Your task to perform on an android device: find which apps use the phone's location Image 0: 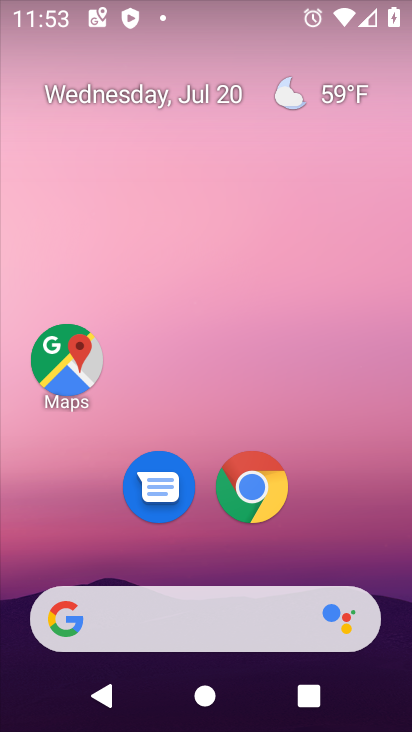
Step 0: drag from (358, 547) to (371, 93)
Your task to perform on an android device: find which apps use the phone's location Image 1: 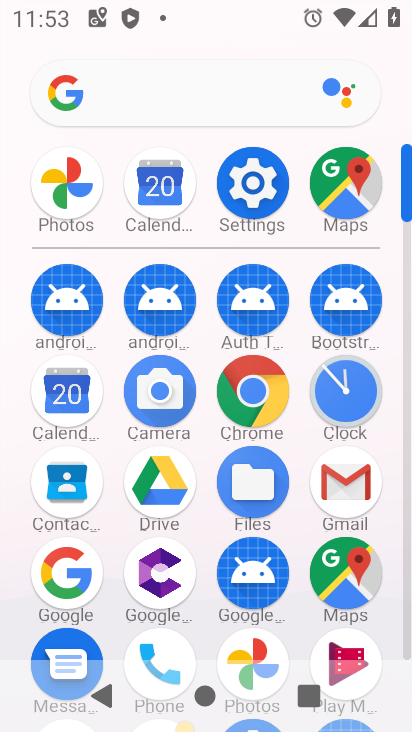
Step 1: click (266, 195)
Your task to perform on an android device: find which apps use the phone's location Image 2: 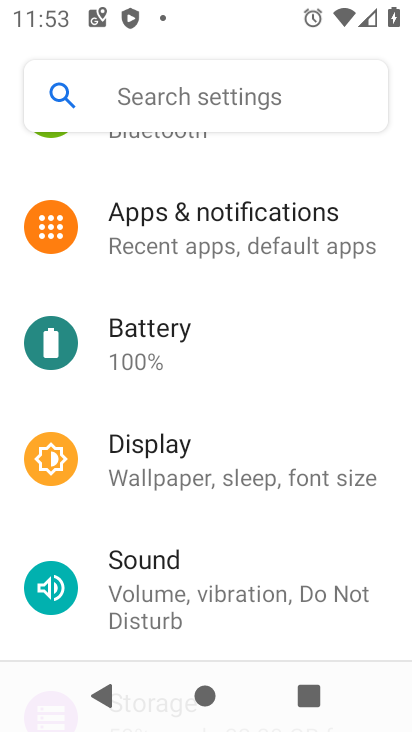
Step 2: drag from (345, 307) to (340, 418)
Your task to perform on an android device: find which apps use the phone's location Image 3: 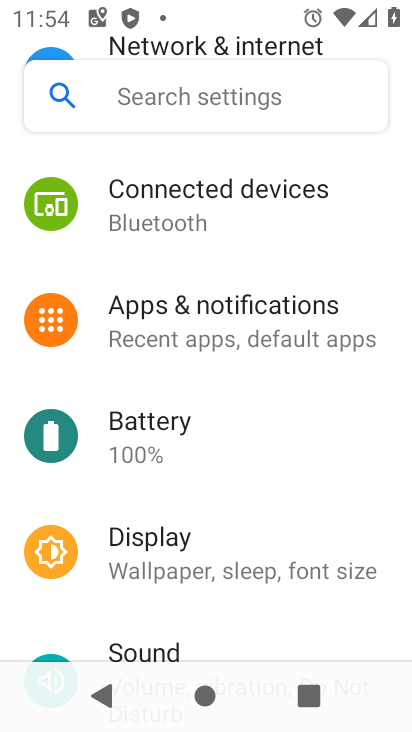
Step 3: drag from (372, 262) to (371, 425)
Your task to perform on an android device: find which apps use the phone's location Image 4: 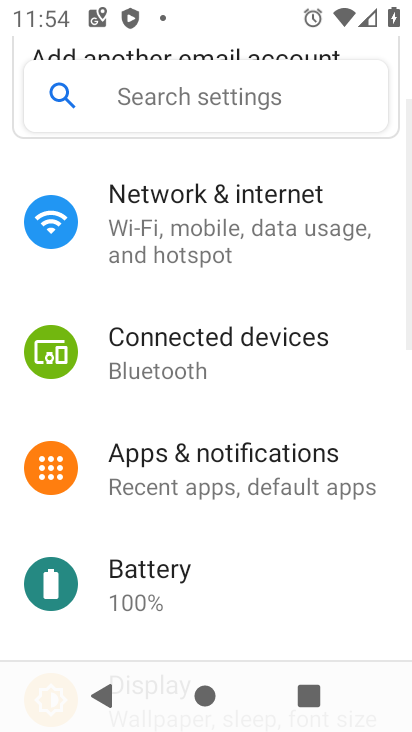
Step 4: drag from (385, 529) to (401, 422)
Your task to perform on an android device: find which apps use the phone's location Image 5: 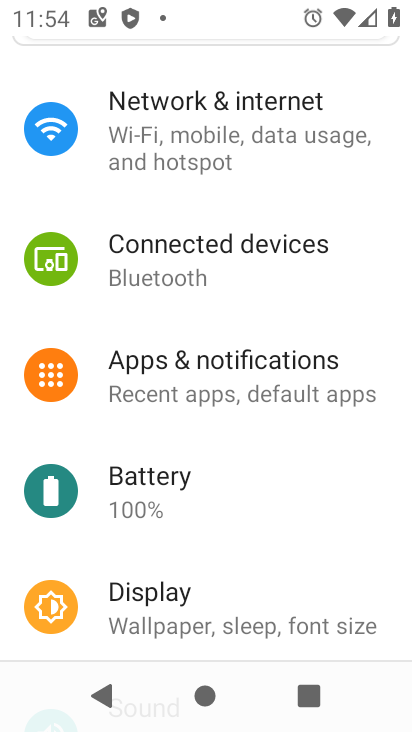
Step 5: drag from (345, 582) to (353, 458)
Your task to perform on an android device: find which apps use the phone's location Image 6: 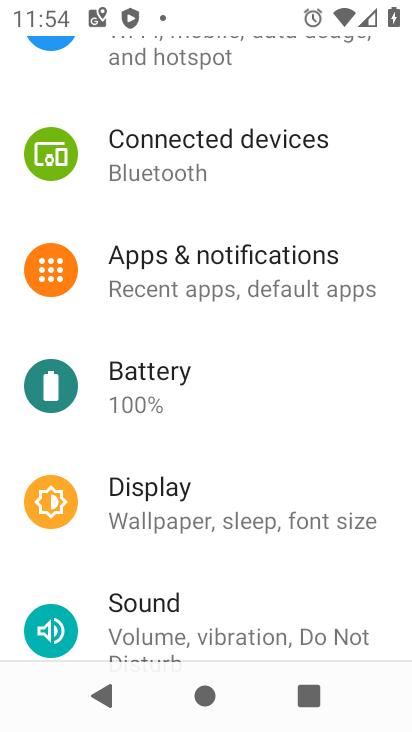
Step 6: drag from (347, 571) to (345, 468)
Your task to perform on an android device: find which apps use the phone's location Image 7: 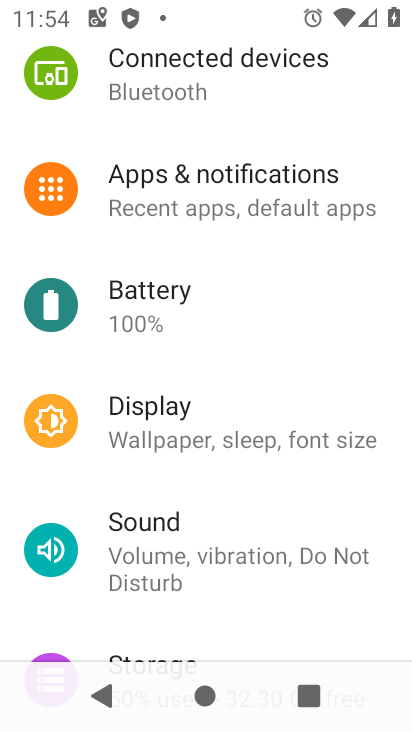
Step 7: drag from (351, 600) to (364, 473)
Your task to perform on an android device: find which apps use the phone's location Image 8: 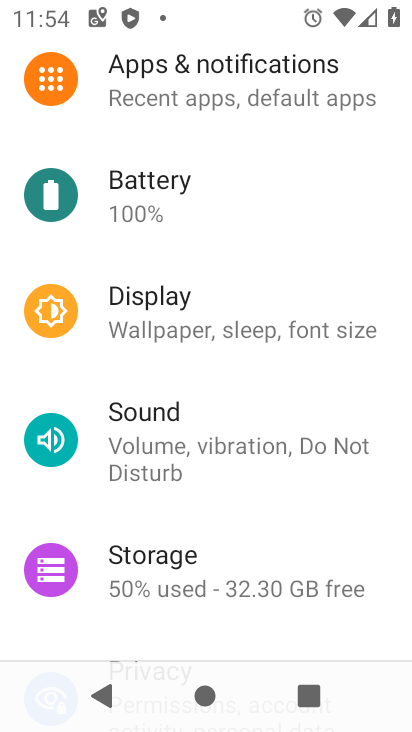
Step 8: drag from (347, 546) to (356, 444)
Your task to perform on an android device: find which apps use the phone's location Image 9: 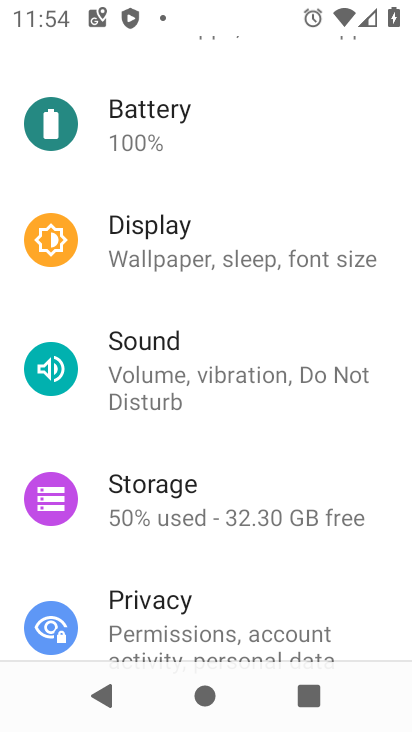
Step 9: drag from (356, 578) to (367, 467)
Your task to perform on an android device: find which apps use the phone's location Image 10: 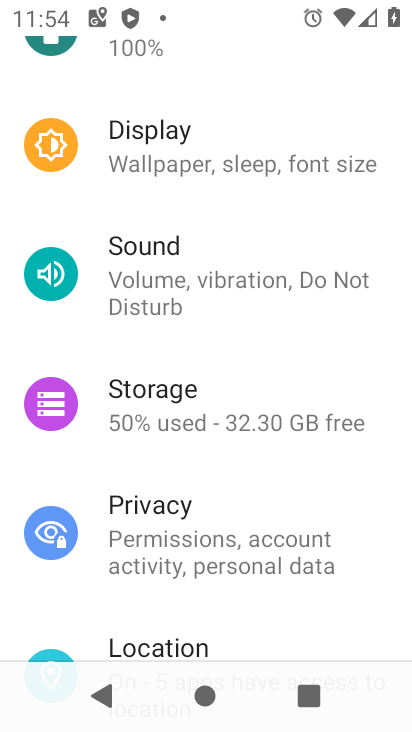
Step 10: drag from (368, 603) to (371, 489)
Your task to perform on an android device: find which apps use the phone's location Image 11: 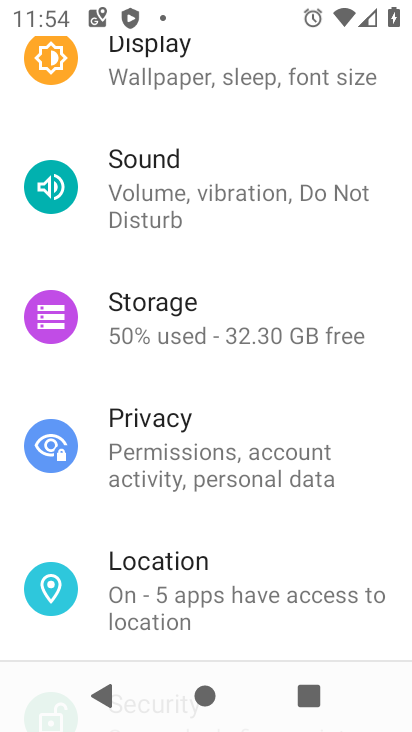
Step 11: drag from (363, 516) to (367, 411)
Your task to perform on an android device: find which apps use the phone's location Image 12: 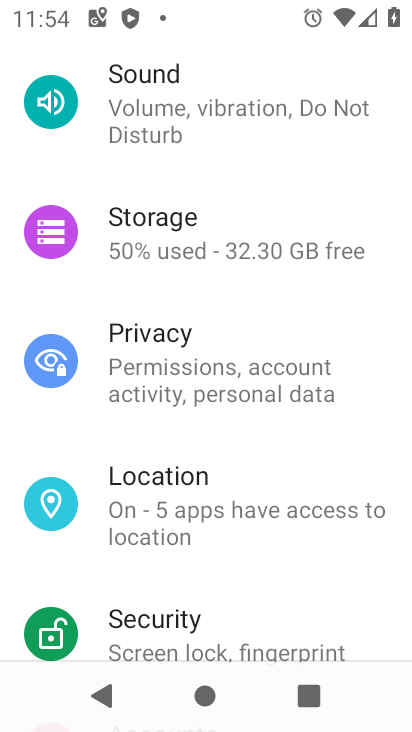
Step 12: drag from (356, 553) to (342, 411)
Your task to perform on an android device: find which apps use the phone's location Image 13: 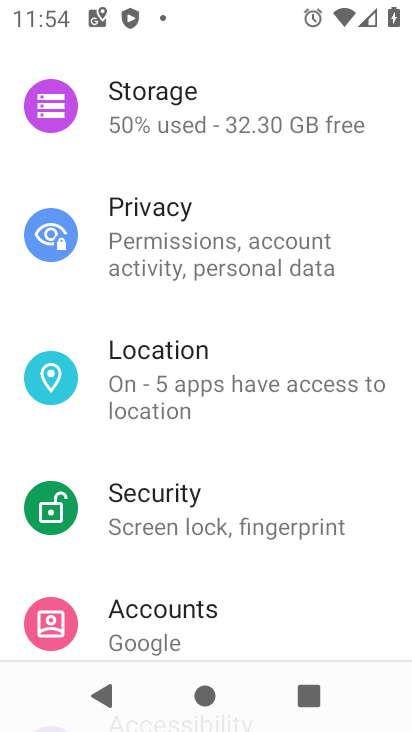
Step 13: click (309, 384)
Your task to perform on an android device: find which apps use the phone's location Image 14: 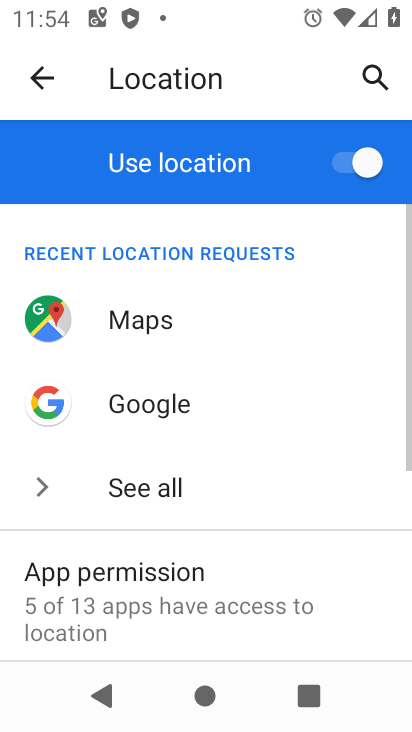
Step 14: click (291, 591)
Your task to perform on an android device: find which apps use the phone's location Image 15: 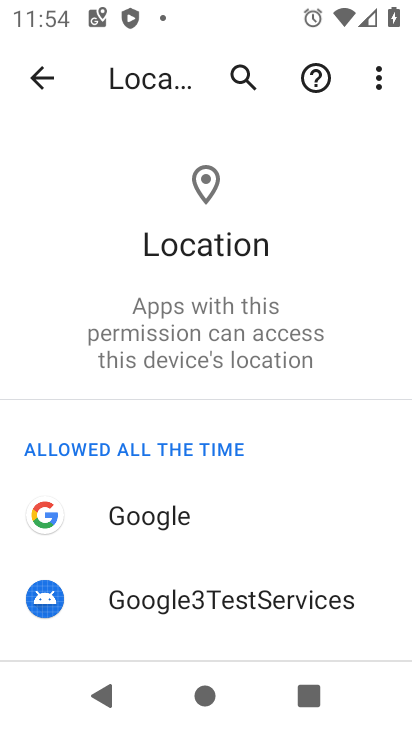
Step 15: drag from (295, 614) to (296, 474)
Your task to perform on an android device: find which apps use the phone's location Image 16: 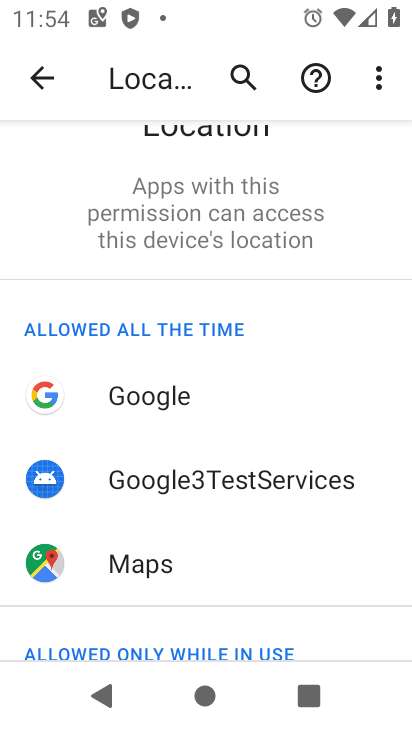
Step 16: drag from (299, 574) to (295, 430)
Your task to perform on an android device: find which apps use the phone's location Image 17: 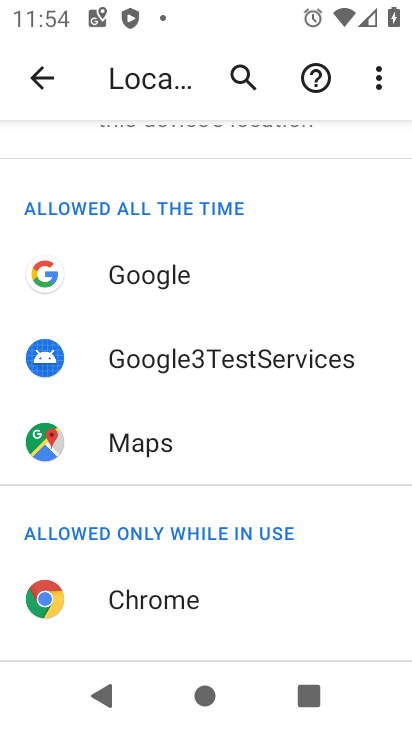
Step 17: drag from (304, 569) to (317, 395)
Your task to perform on an android device: find which apps use the phone's location Image 18: 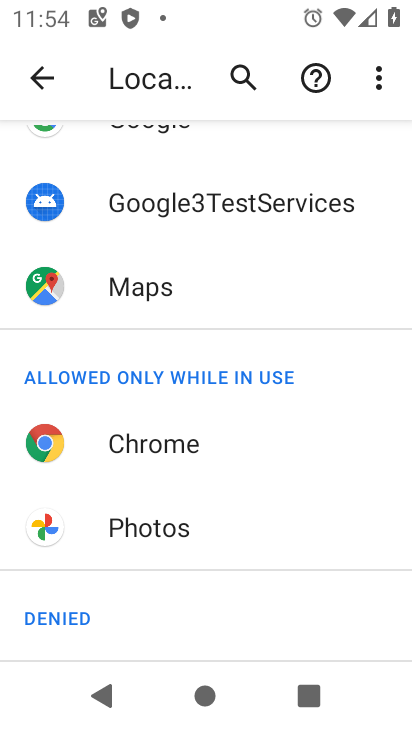
Step 18: click (174, 523)
Your task to perform on an android device: find which apps use the phone's location Image 19: 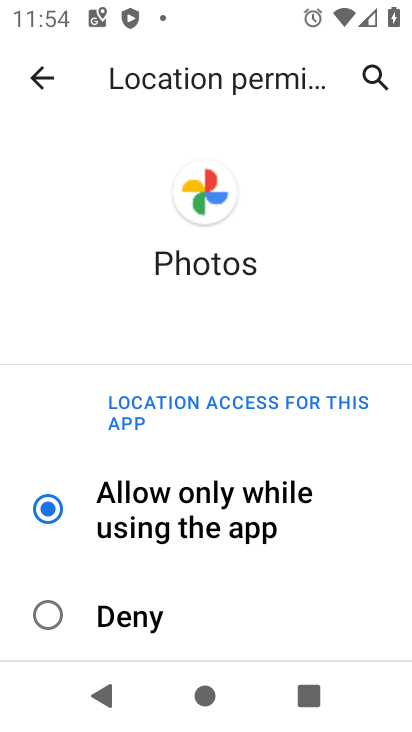
Step 19: task complete